Your task to perform on an android device: see tabs open on other devices in the chrome app Image 0: 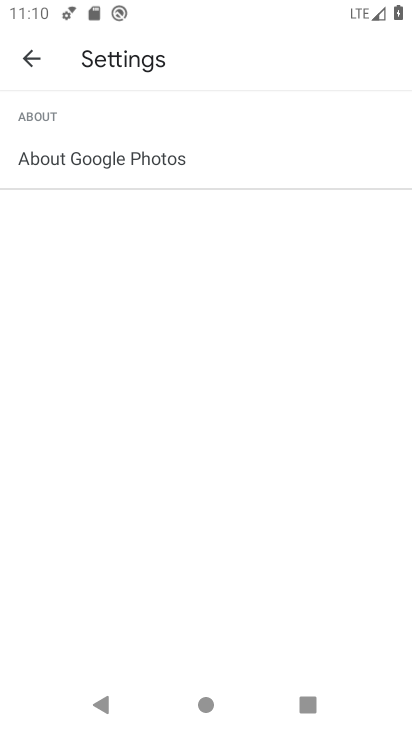
Step 0: press home button
Your task to perform on an android device: see tabs open on other devices in the chrome app Image 1: 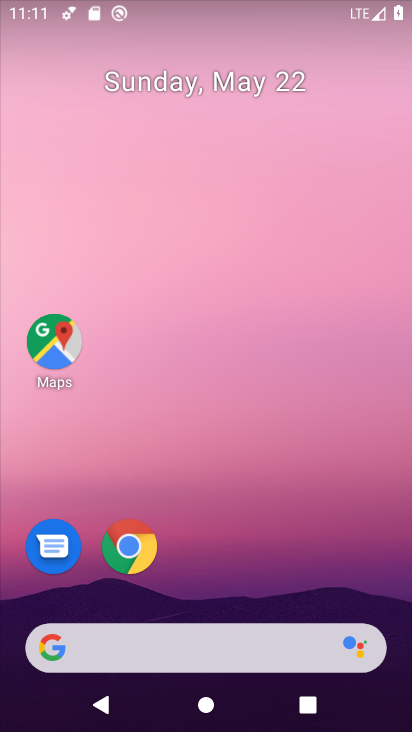
Step 1: drag from (286, 614) to (280, 234)
Your task to perform on an android device: see tabs open on other devices in the chrome app Image 2: 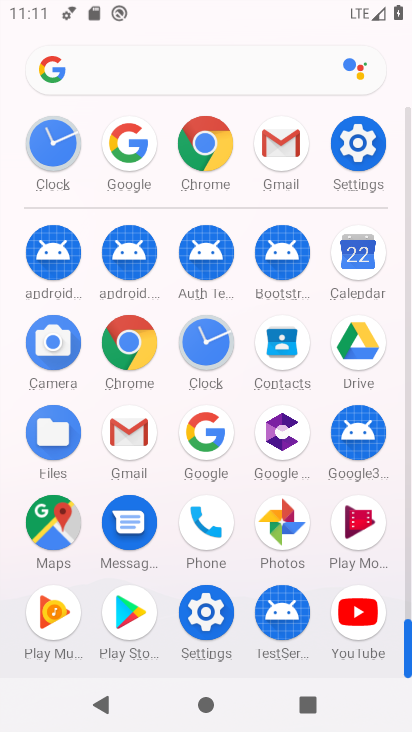
Step 2: click (198, 181)
Your task to perform on an android device: see tabs open on other devices in the chrome app Image 3: 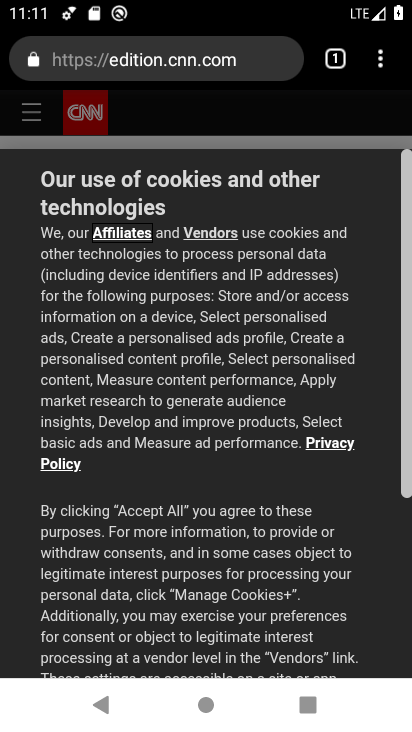
Step 3: task complete